Your task to perform on an android device: Find coffee shops on Maps Image 0: 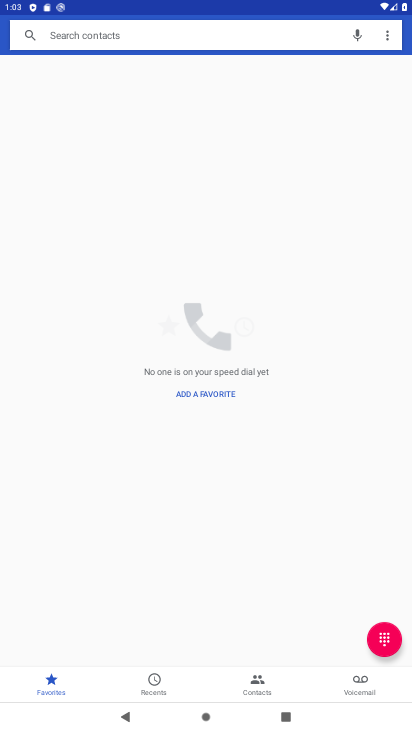
Step 0: click (184, 478)
Your task to perform on an android device: Find coffee shops on Maps Image 1: 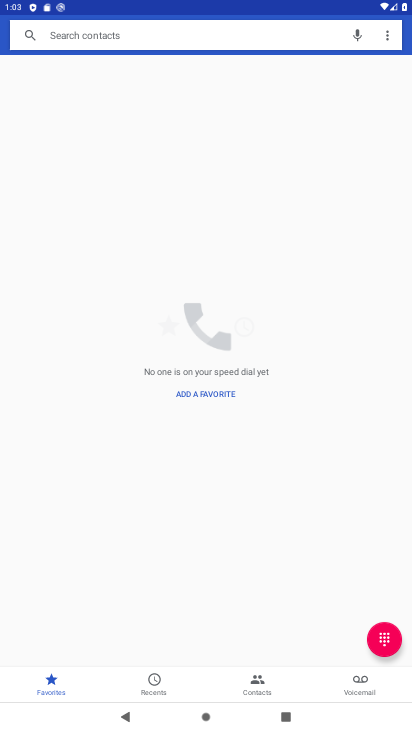
Step 1: press home button
Your task to perform on an android device: Find coffee shops on Maps Image 2: 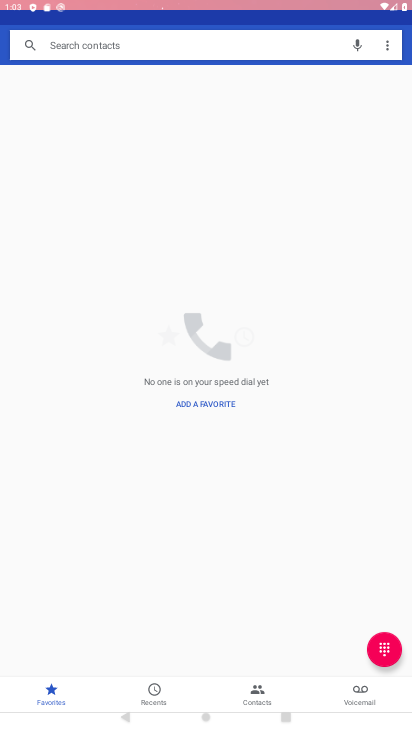
Step 2: drag from (221, 526) to (244, 204)
Your task to perform on an android device: Find coffee shops on Maps Image 3: 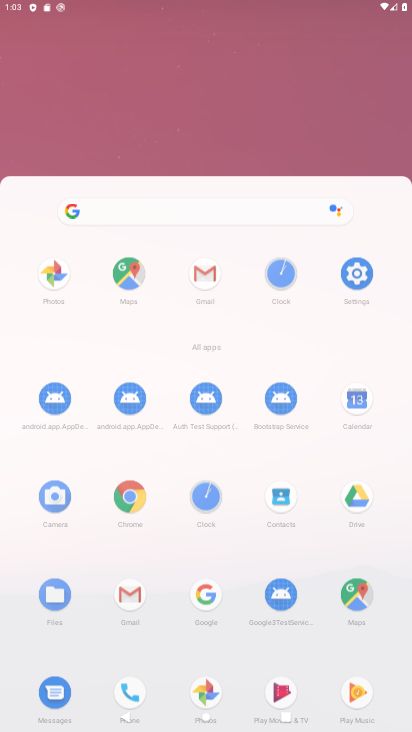
Step 3: drag from (217, 621) to (216, 269)
Your task to perform on an android device: Find coffee shops on Maps Image 4: 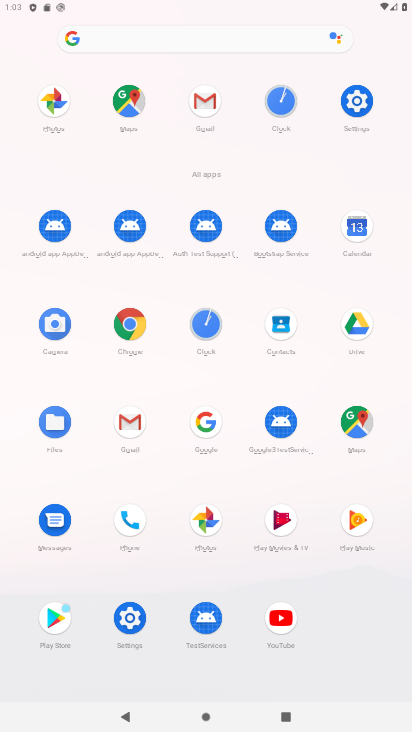
Step 4: click (357, 419)
Your task to perform on an android device: Find coffee shops on Maps Image 5: 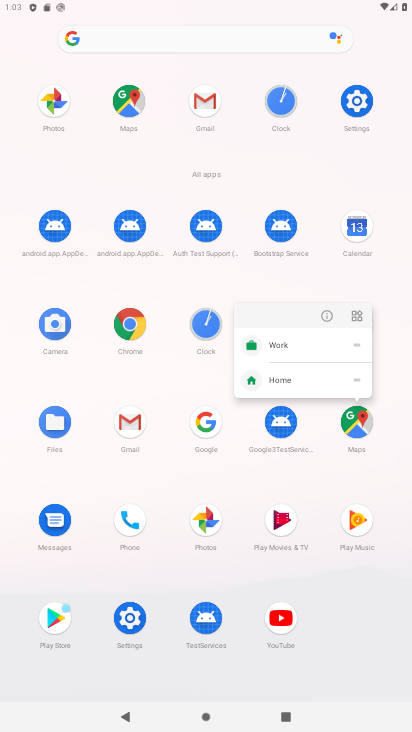
Step 5: click (330, 308)
Your task to perform on an android device: Find coffee shops on Maps Image 6: 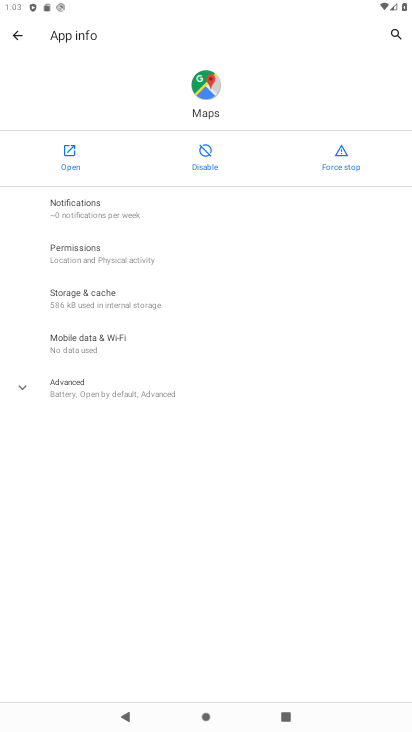
Step 6: click (68, 150)
Your task to perform on an android device: Find coffee shops on Maps Image 7: 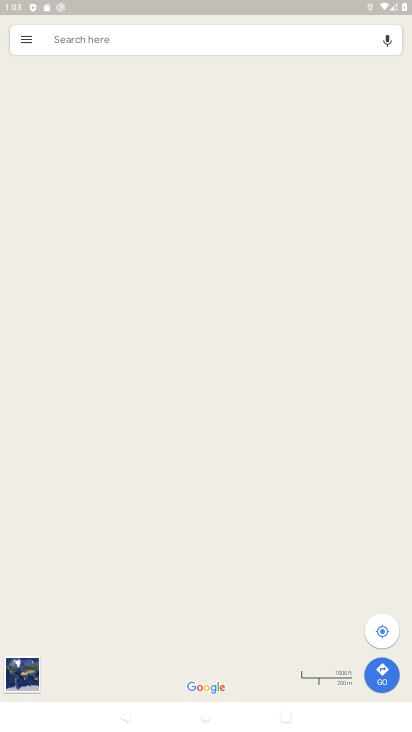
Step 7: click (115, 36)
Your task to perform on an android device: Find coffee shops on Maps Image 8: 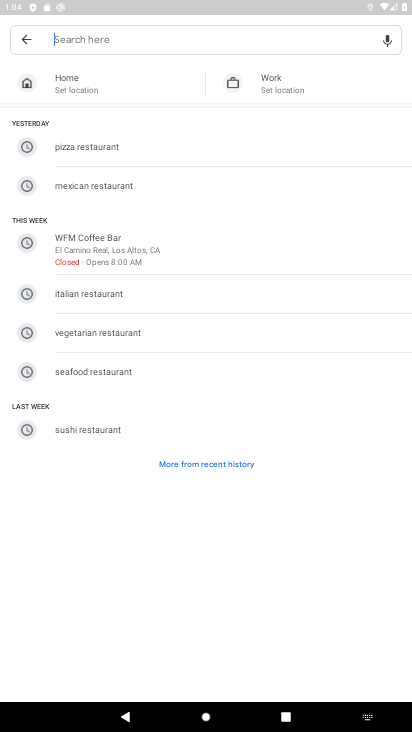
Step 8: type "coffee shop"
Your task to perform on an android device: Find coffee shops on Maps Image 9: 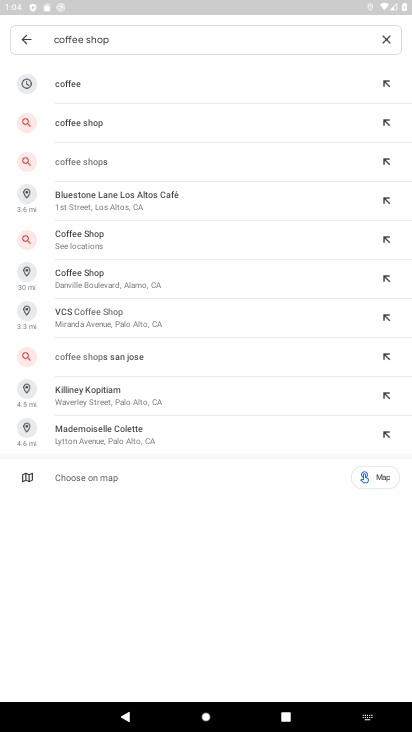
Step 9: click (101, 120)
Your task to perform on an android device: Find coffee shops on Maps Image 10: 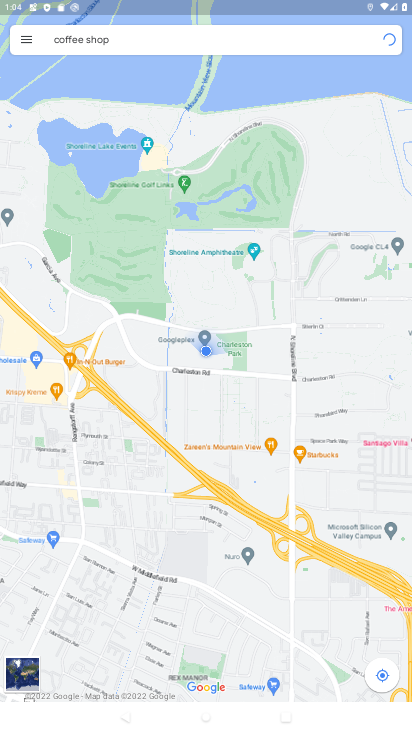
Step 10: task complete